Your task to perform on an android device: Open battery settings Image 0: 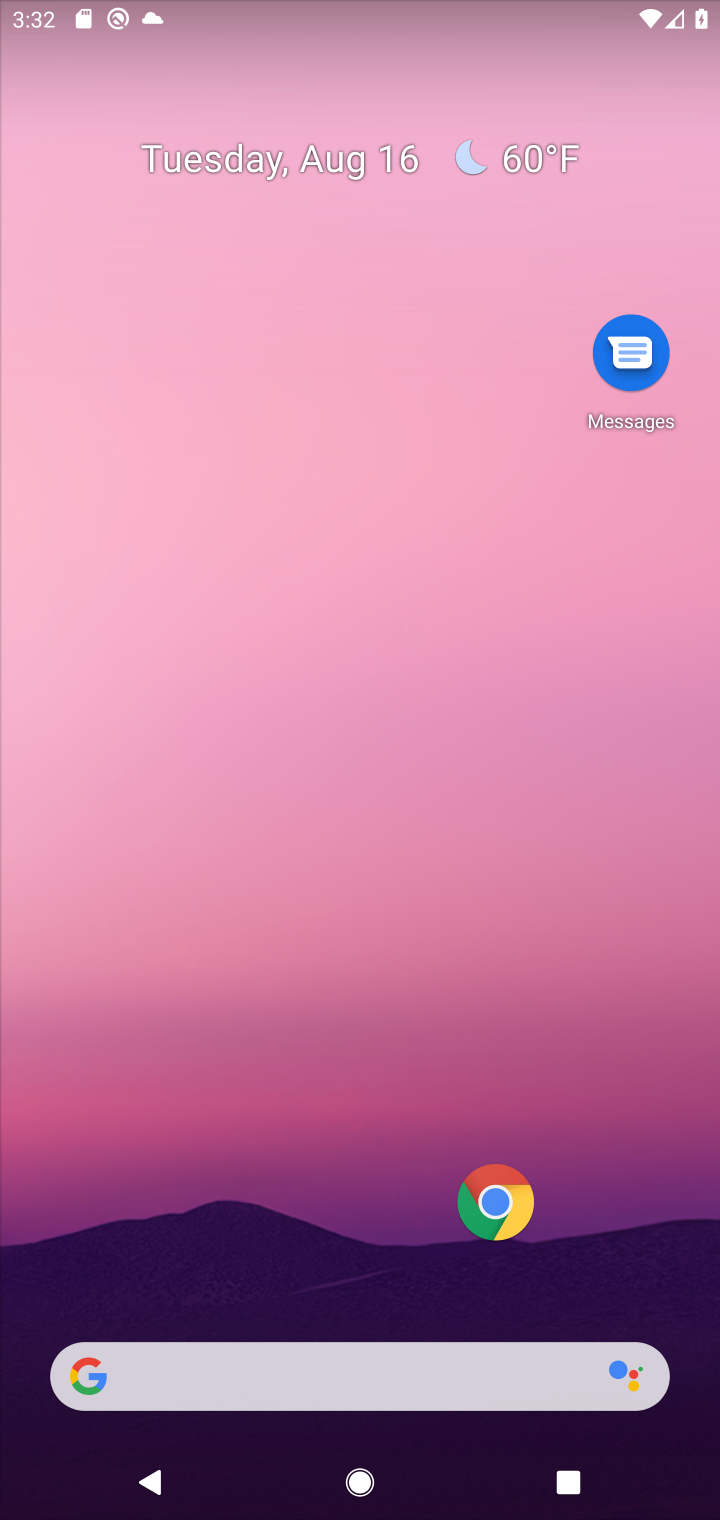
Step 0: drag from (299, 412) to (438, 117)
Your task to perform on an android device: Open battery settings Image 1: 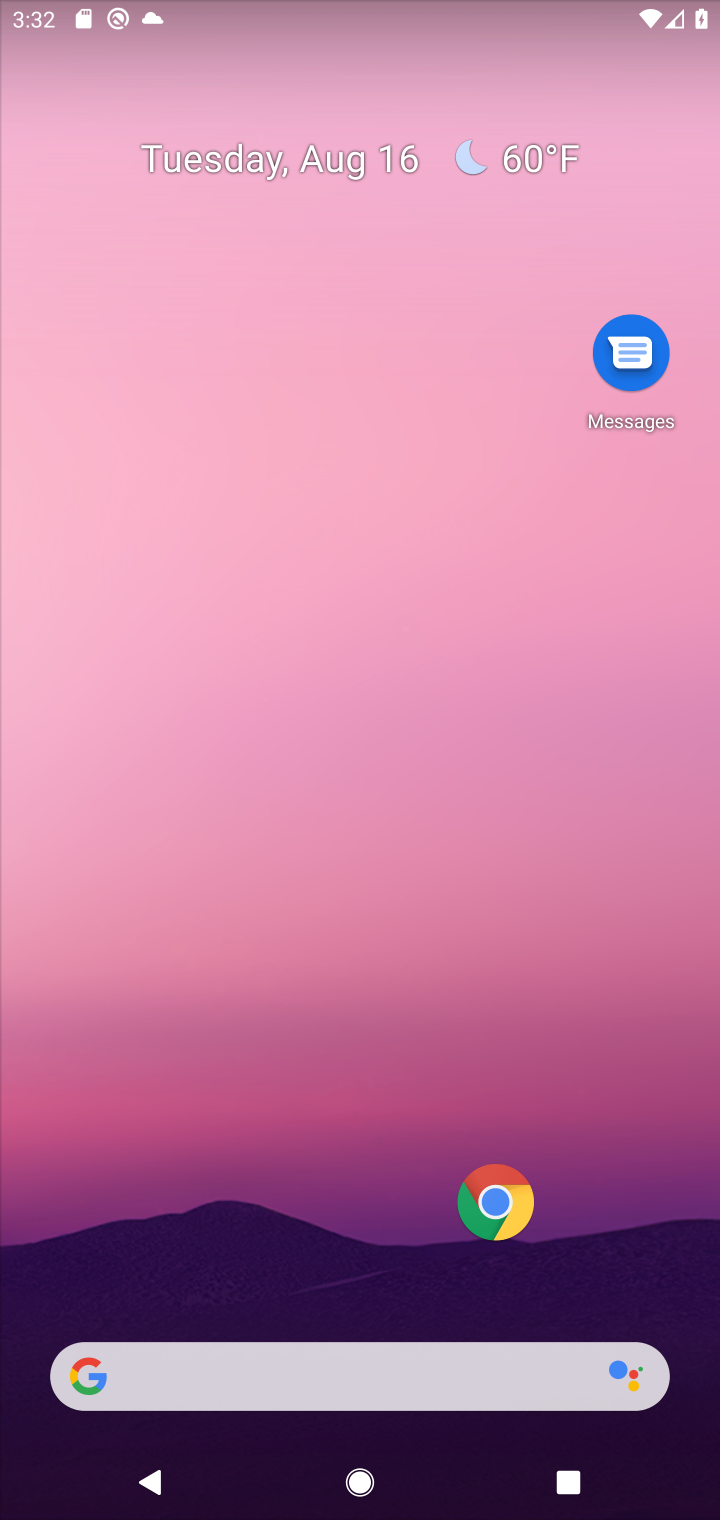
Step 1: press home button
Your task to perform on an android device: Open battery settings Image 2: 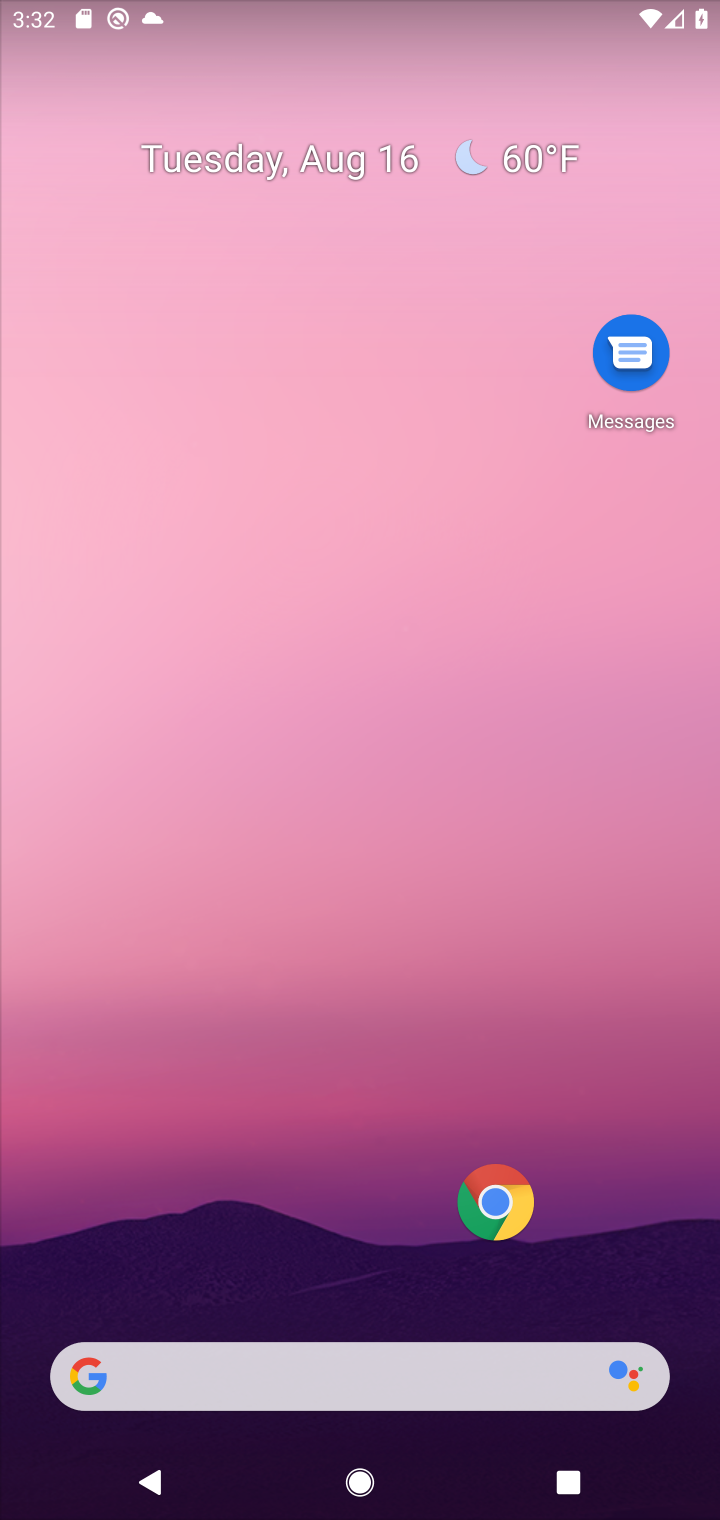
Step 2: drag from (99, 1117) to (440, 130)
Your task to perform on an android device: Open battery settings Image 3: 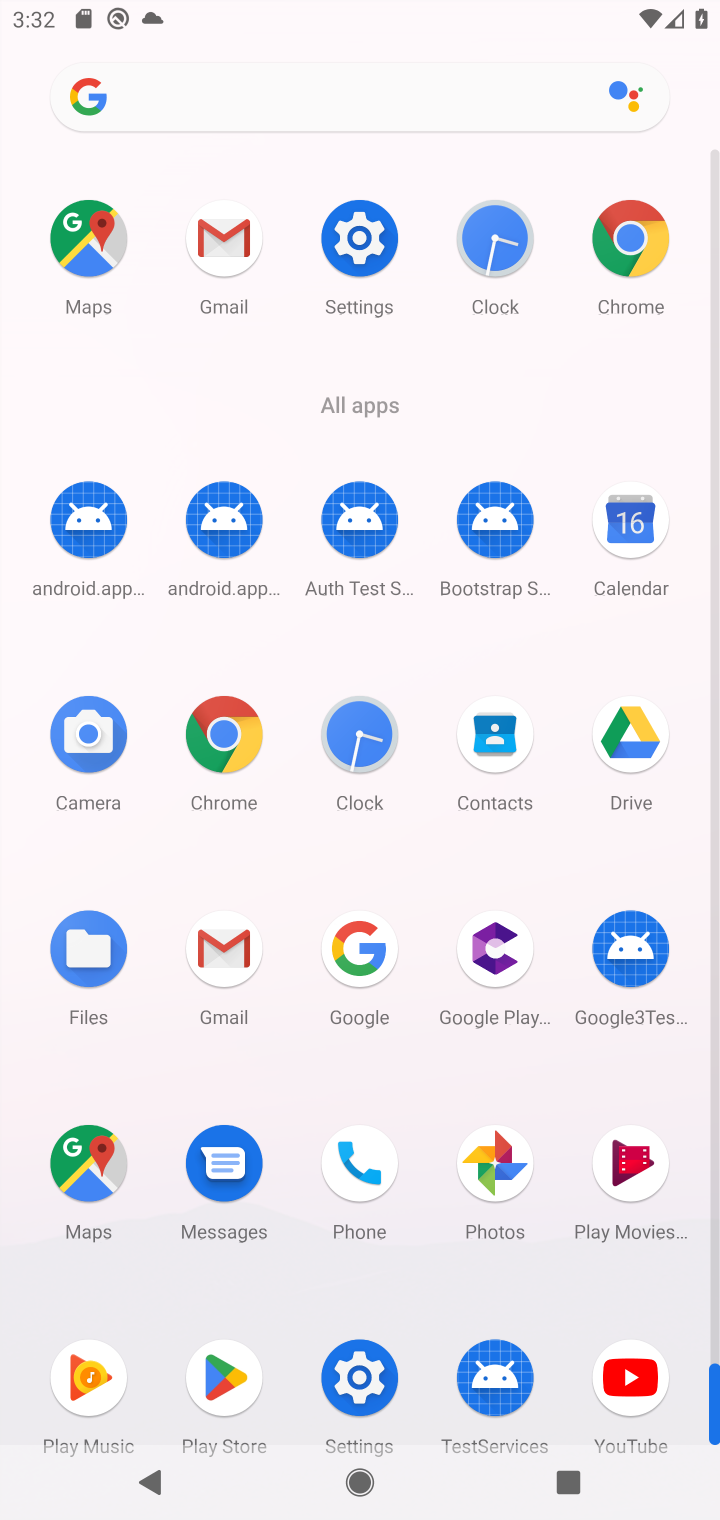
Step 3: click (350, 241)
Your task to perform on an android device: Open battery settings Image 4: 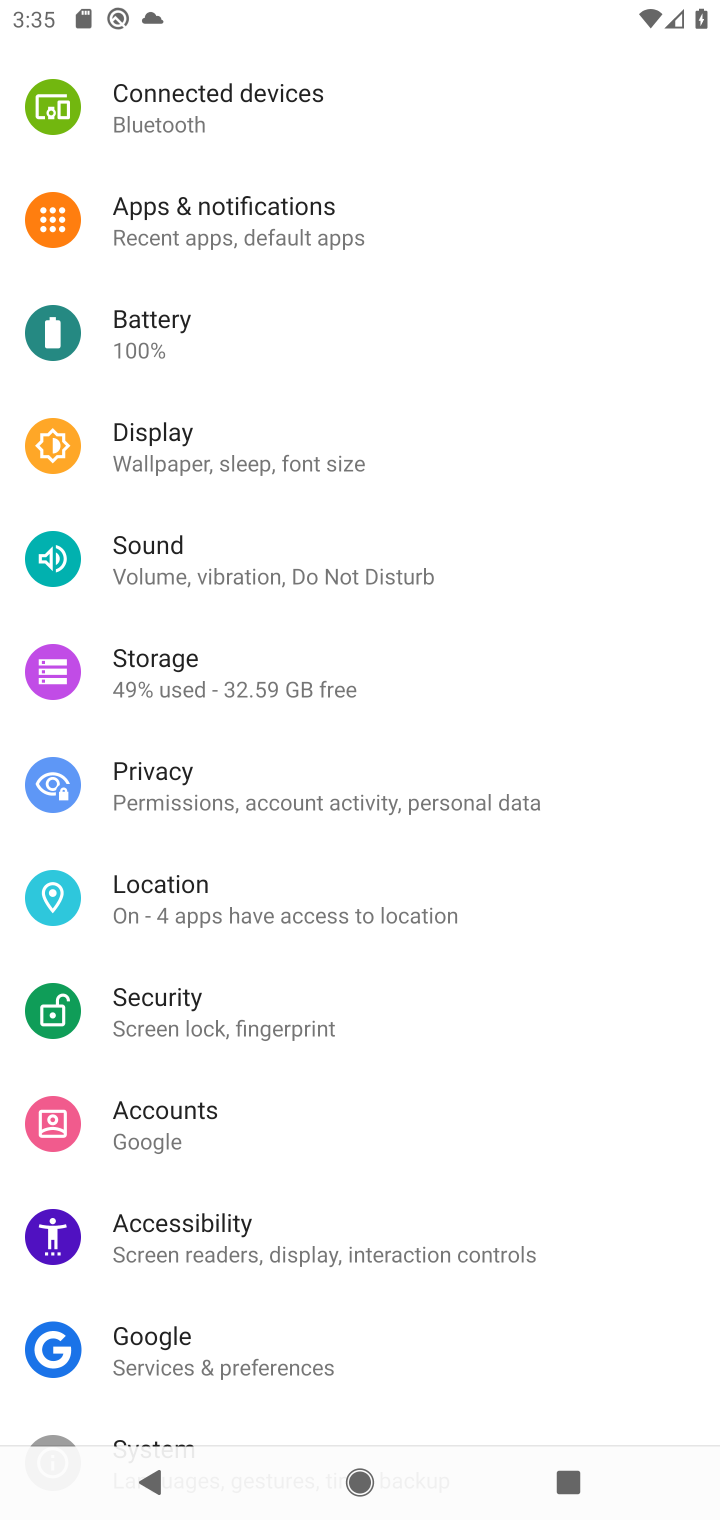
Step 4: click (164, 307)
Your task to perform on an android device: Open battery settings Image 5: 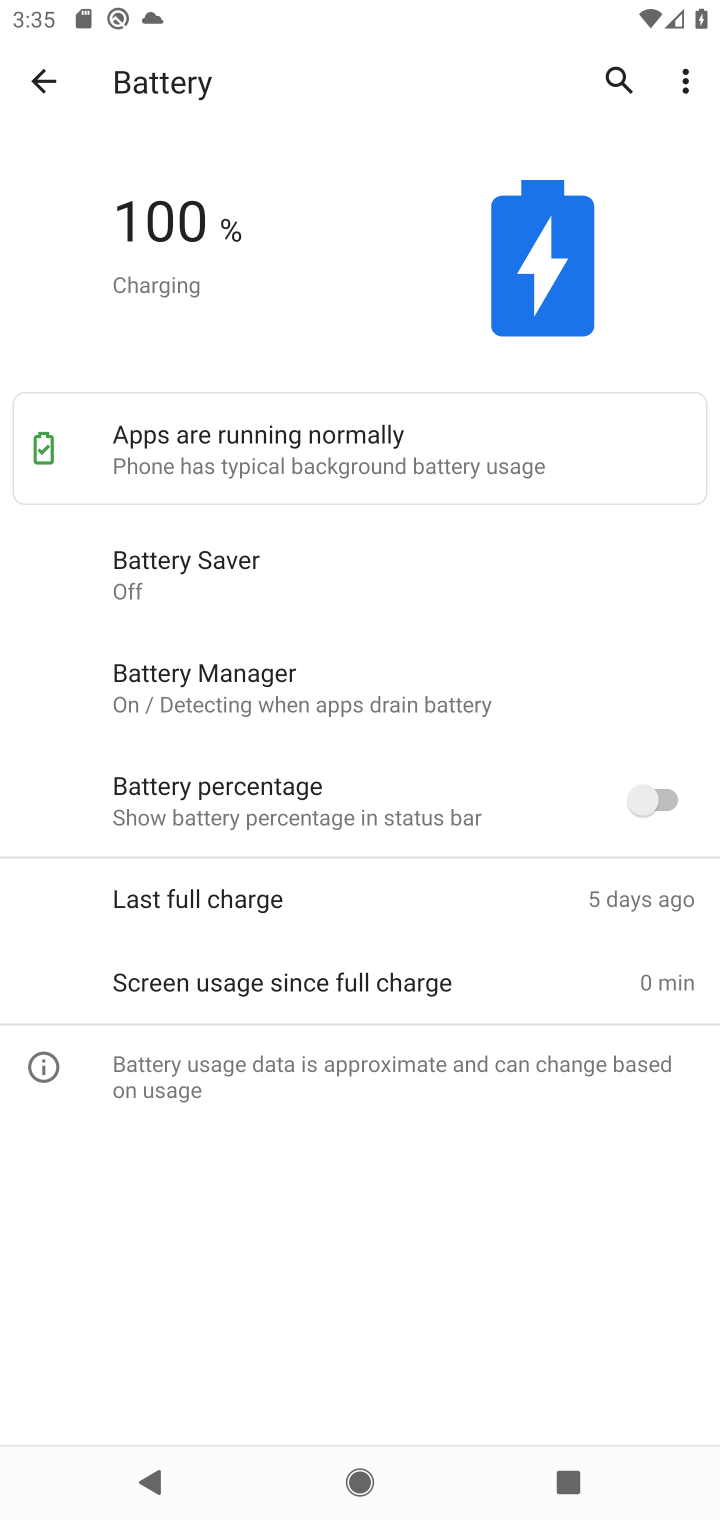
Step 5: task complete